Your task to perform on an android device: Go to Reddit.com Image 0: 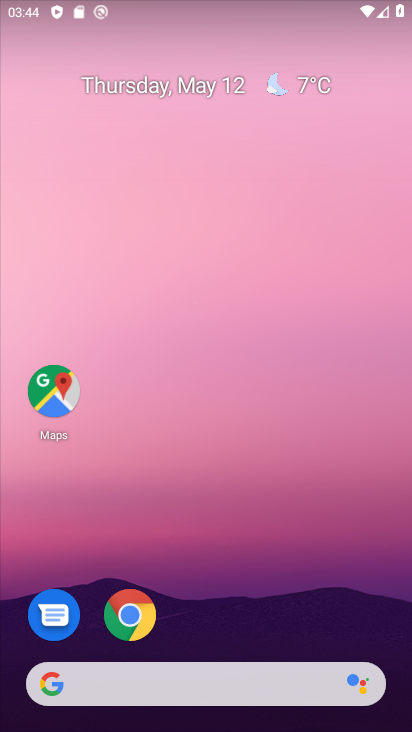
Step 0: click (131, 599)
Your task to perform on an android device: Go to Reddit.com Image 1: 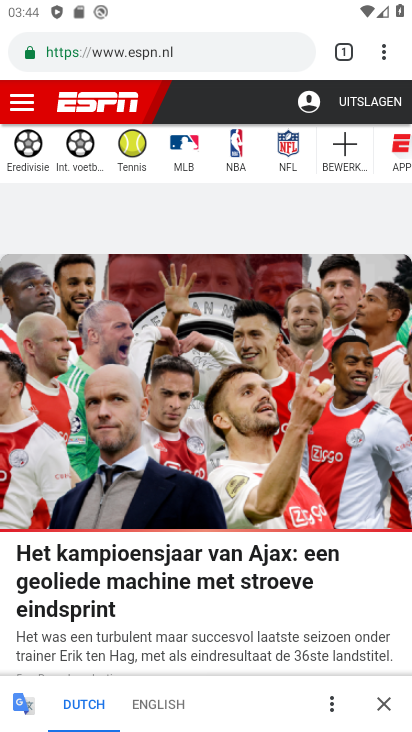
Step 1: click (264, 48)
Your task to perform on an android device: Go to Reddit.com Image 2: 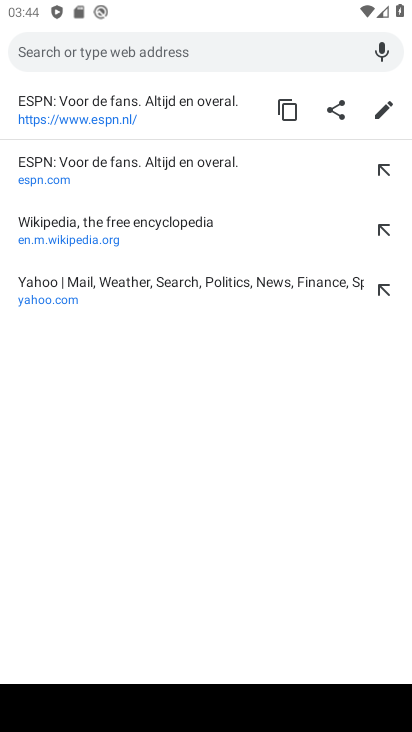
Step 2: type "reddit.com"
Your task to perform on an android device: Go to Reddit.com Image 3: 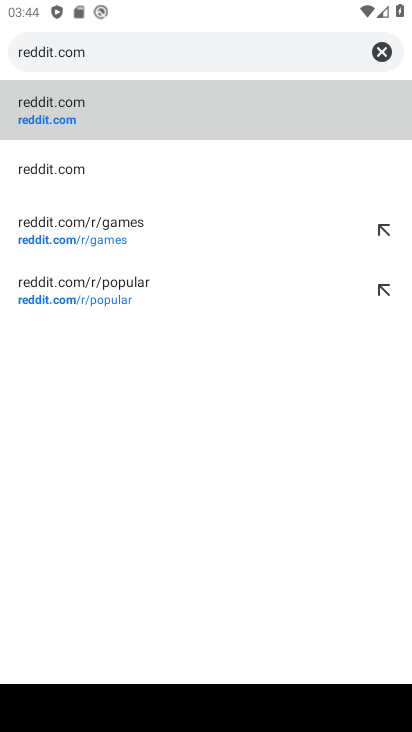
Step 3: click (82, 104)
Your task to perform on an android device: Go to Reddit.com Image 4: 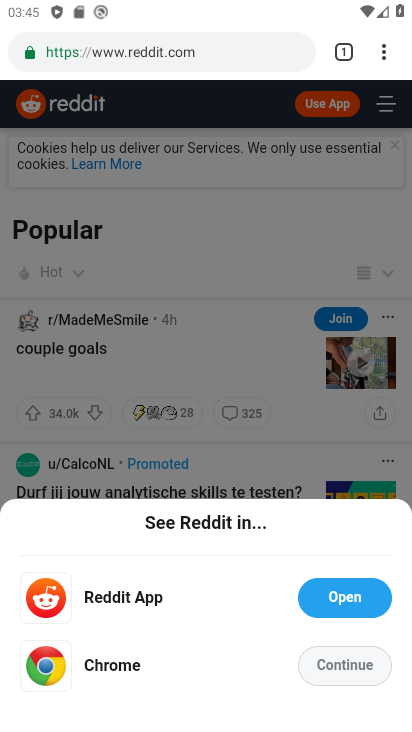
Step 4: task complete